Your task to perform on an android device: Open a new Chrome incognito window Image 0: 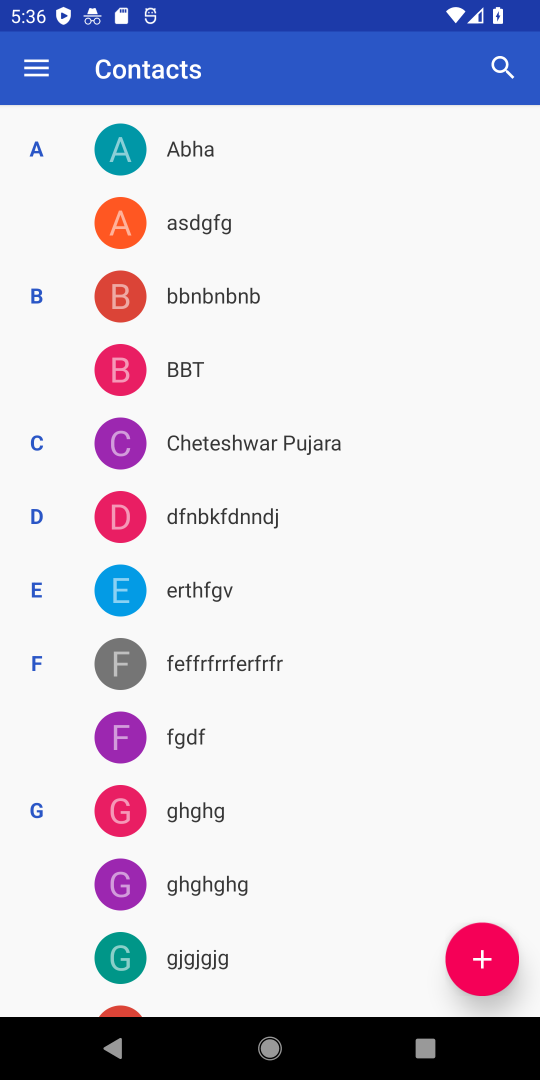
Step 0: press home button
Your task to perform on an android device: Open a new Chrome incognito window Image 1: 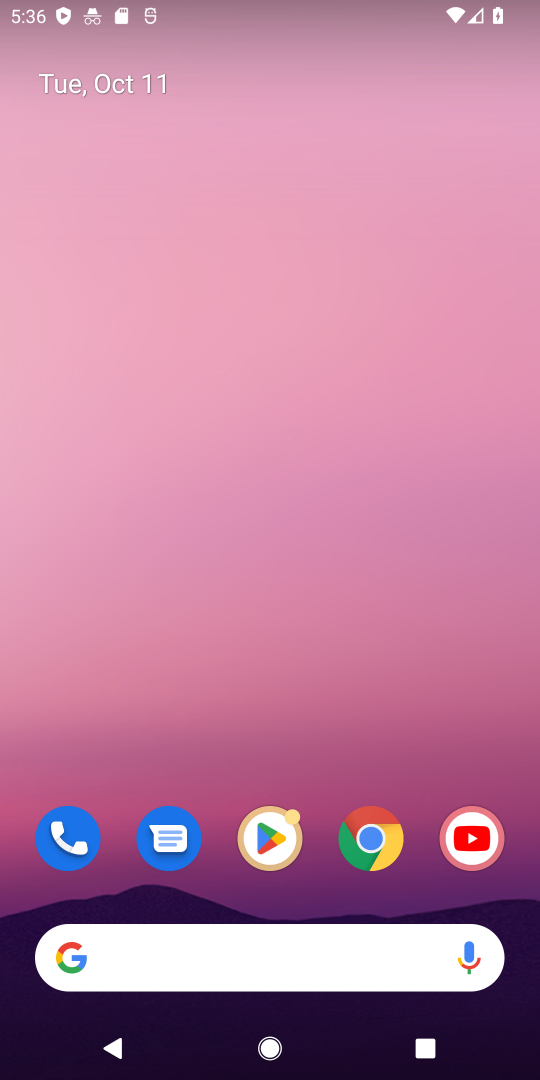
Step 1: click (368, 828)
Your task to perform on an android device: Open a new Chrome incognito window Image 2: 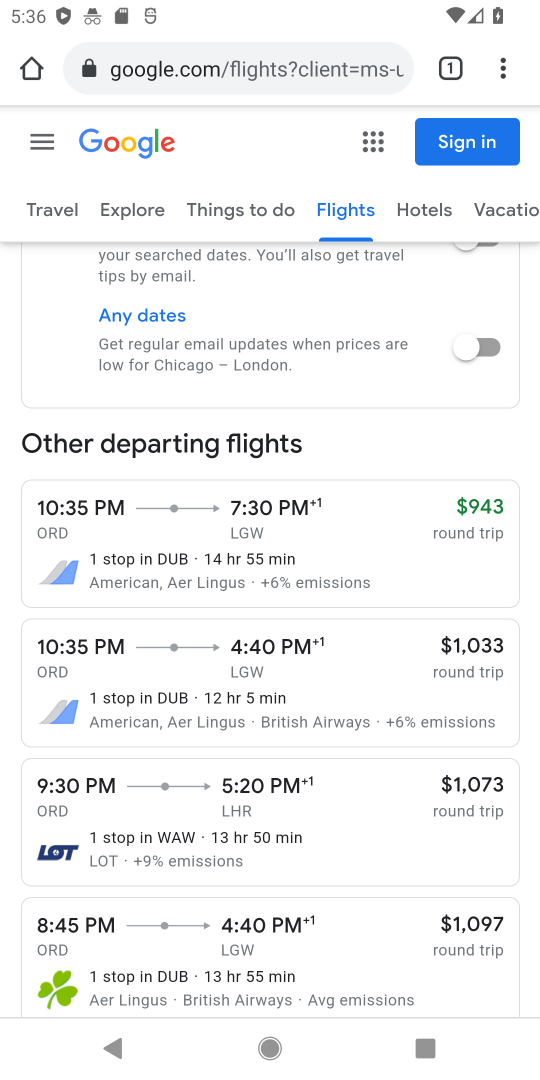
Step 2: click (498, 62)
Your task to perform on an android device: Open a new Chrome incognito window Image 3: 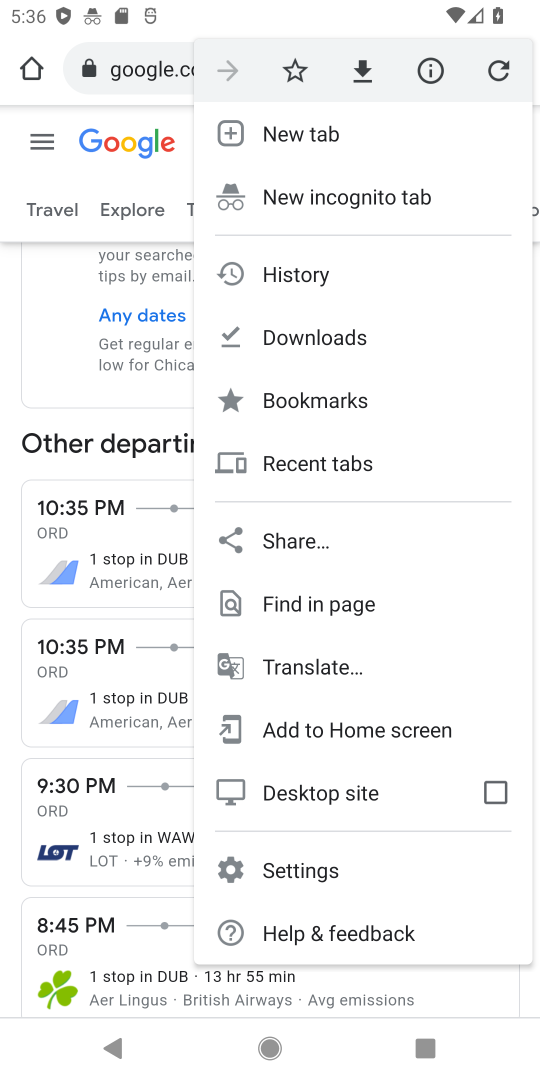
Step 3: click (354, 191)
Your task to perform on an android device: Open a new Chrome incognito window Image 4: 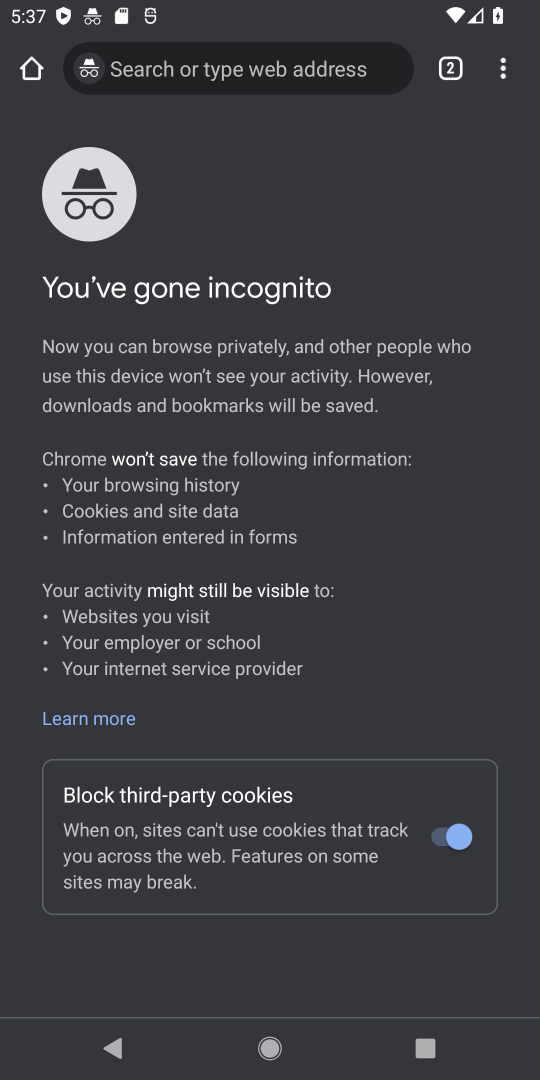
Step 4: task complete